Your task to perform on an android device: Open Amazon Image 0: 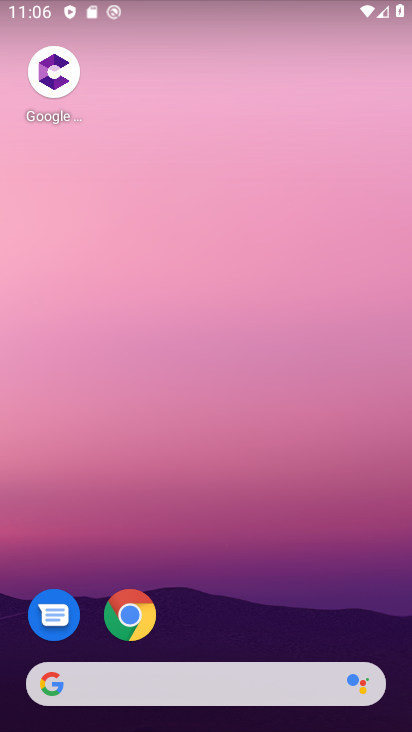
Step 0: drag from (381, 630) to (382, 300)
Your task to perform on an android device: Open Amazon Image 1: 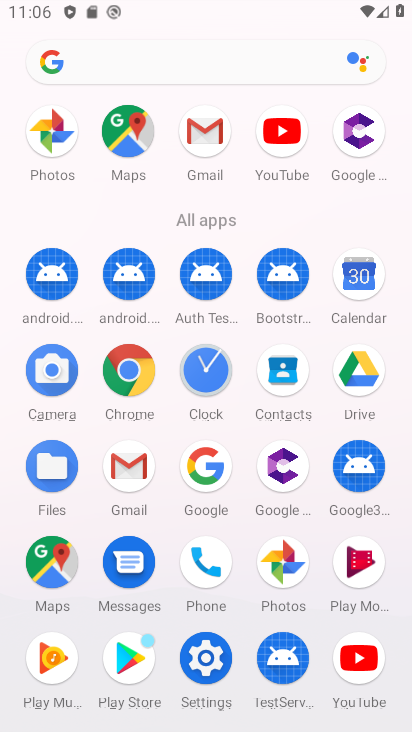
Step 1: click (136, 371)
Your task to perform on an android device: Open Amazon Image 2: 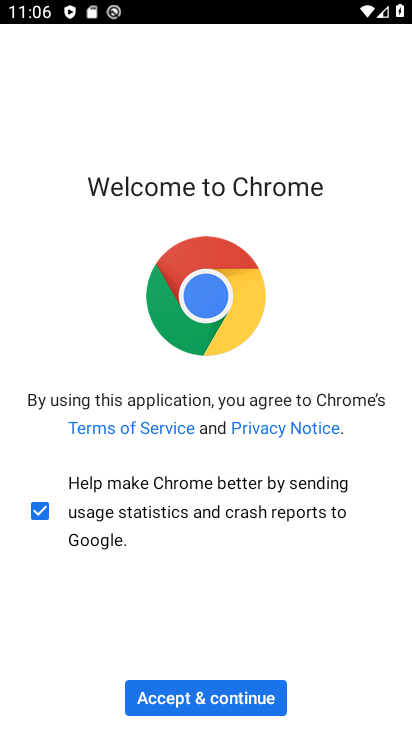
Step 2: drag from (386, 456) to (405, 542)
Your task to perform on an android device: Open Amazon Image 3: 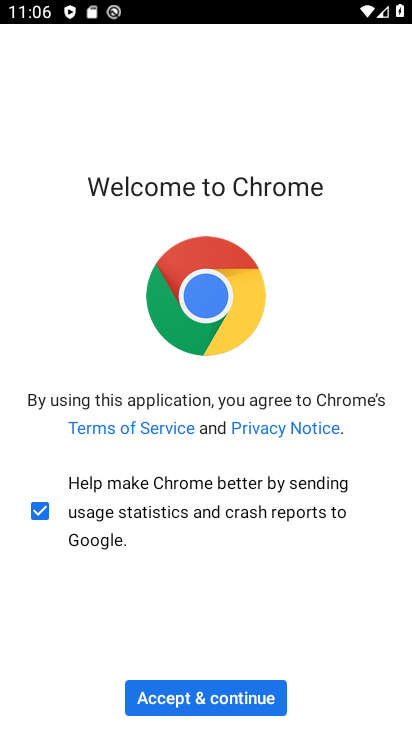
Step 3: click (242, 697)
Your task to perform on an android device: Open Amazon Image 4: 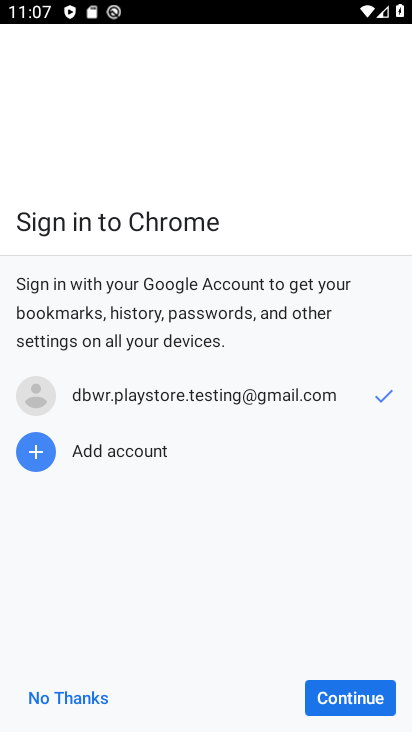
Step 4: click (342, 692)
Your task to perform on an android device: Open Amazon Image 5: 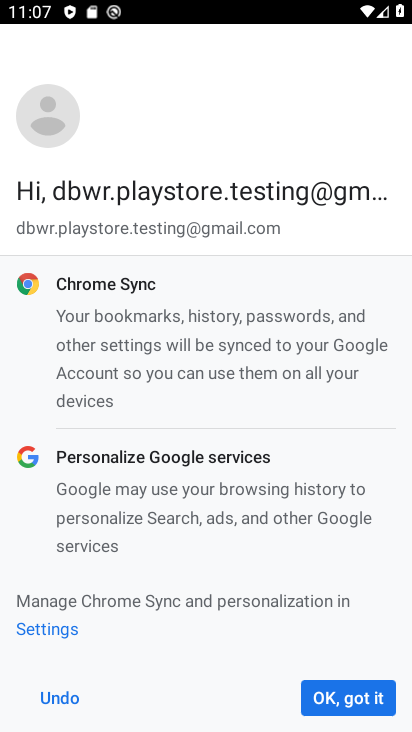
Step 5: click (337, 588)
Your task to perform on an android device: Open Amazon Image 6: 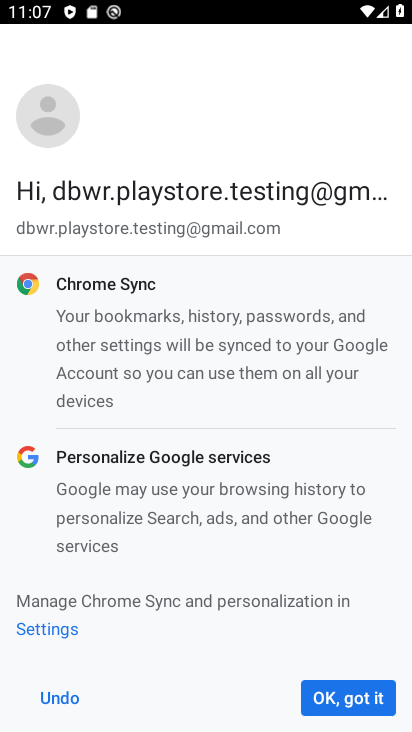
Step 6: click (355, 683)
Your task to perform on an android device: Open Amazon Image 7: 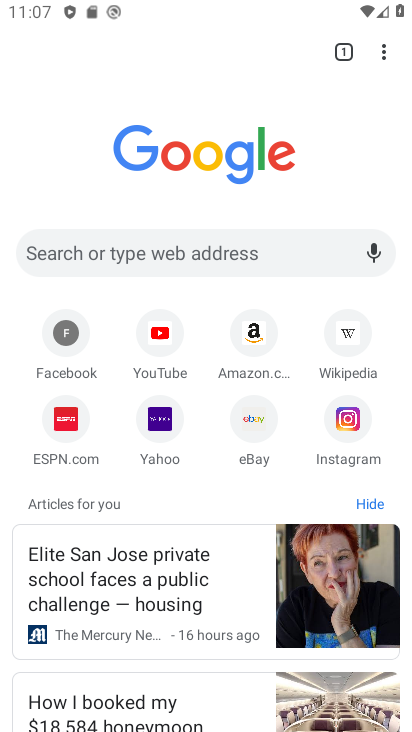
Step 7: click (268, 323)
Your task to perform on an android device: Open Amazon Image 8: 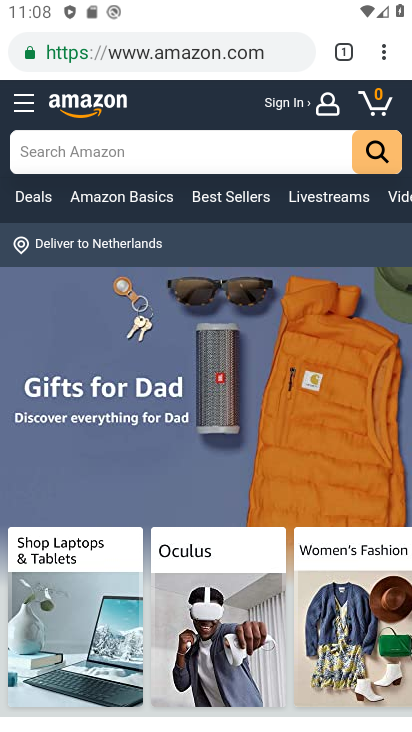
Step 8: task complete